Your task to perform on an android device: open app "Adobe Acrobat Reader" (install if not already installed) and go to login screen Image 0: 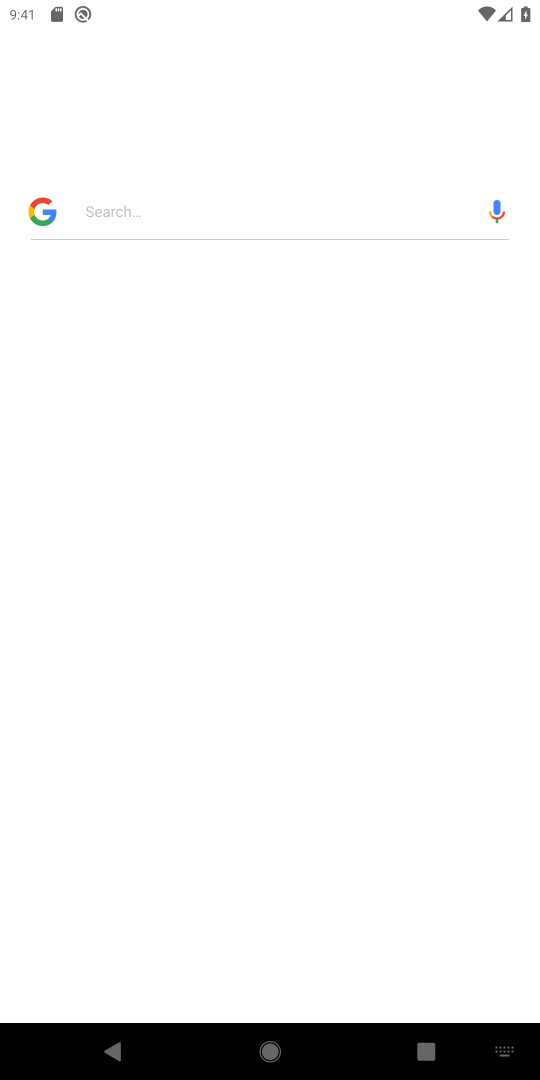
Step 0: press home button
Your task to perform on an android device: open app "Adobe Acrobat Reader" (install if not already installed) and go to login screen Image 1: 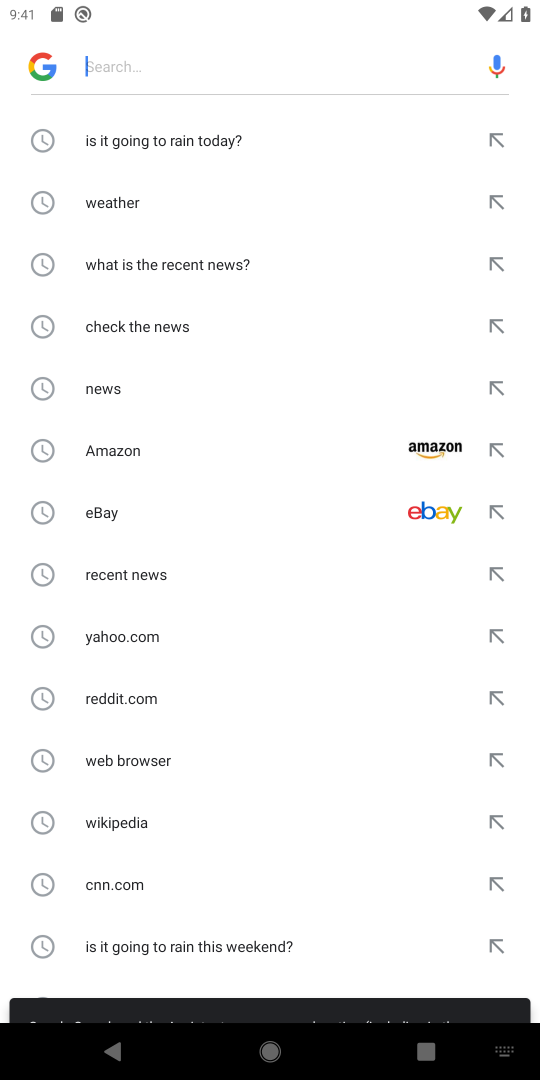
Step 1: press home button
Your task to perform on an android device: open app "Adobe Acrobat Reader" (install if not already installed) and go to login screen Image 2: 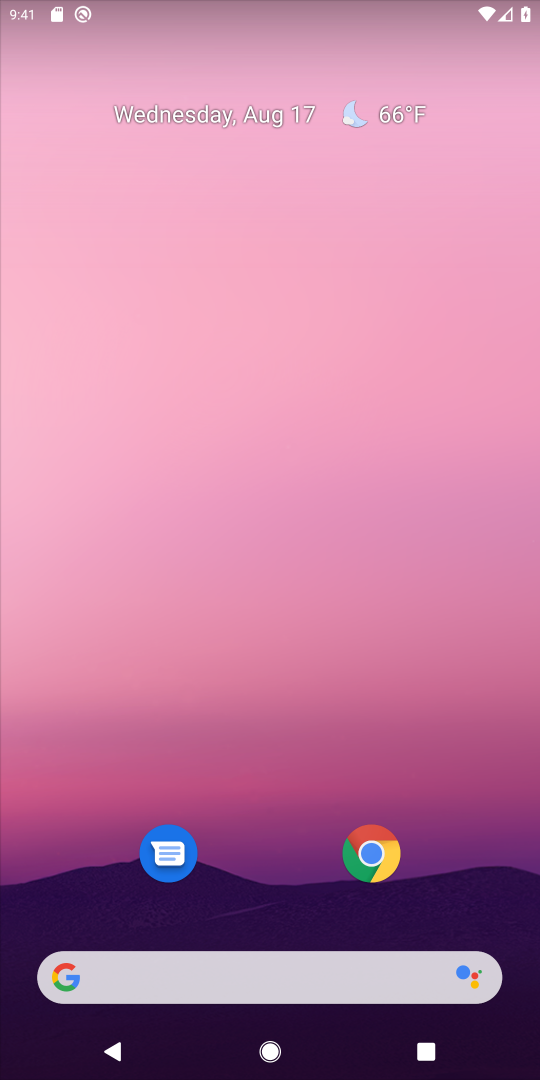
Step 2: press home button
Your task to perform on an android device: open app "Adobe Acrobat Reader" (install if not already installed) and go to login screen Image 3: 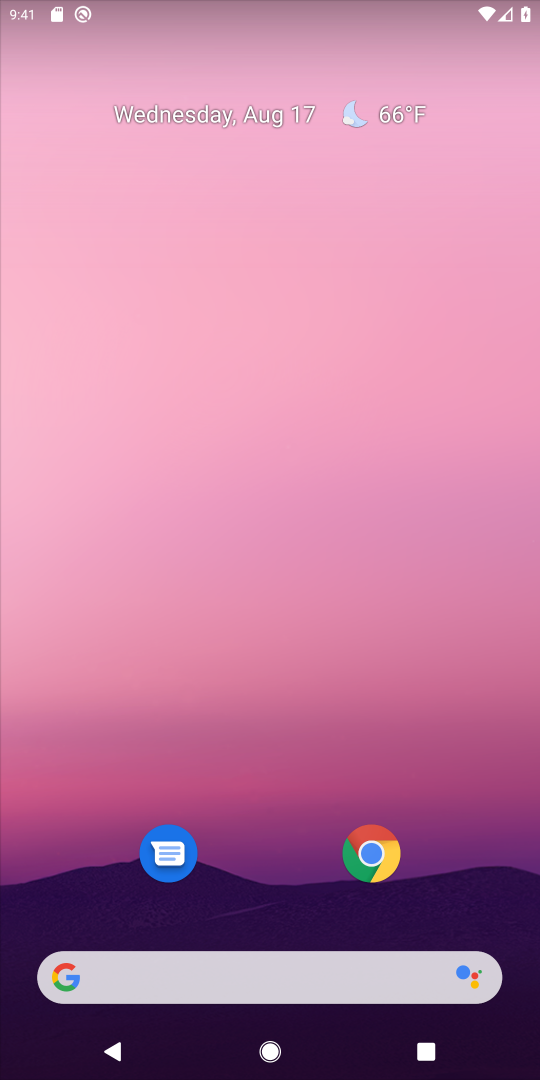
Step 3: drag from (287, 909) to (376, 4)
Your task to perform on an android device: open app "Adobe Acrobat Reader" (install if not already installed) and go to login screen Image 4: 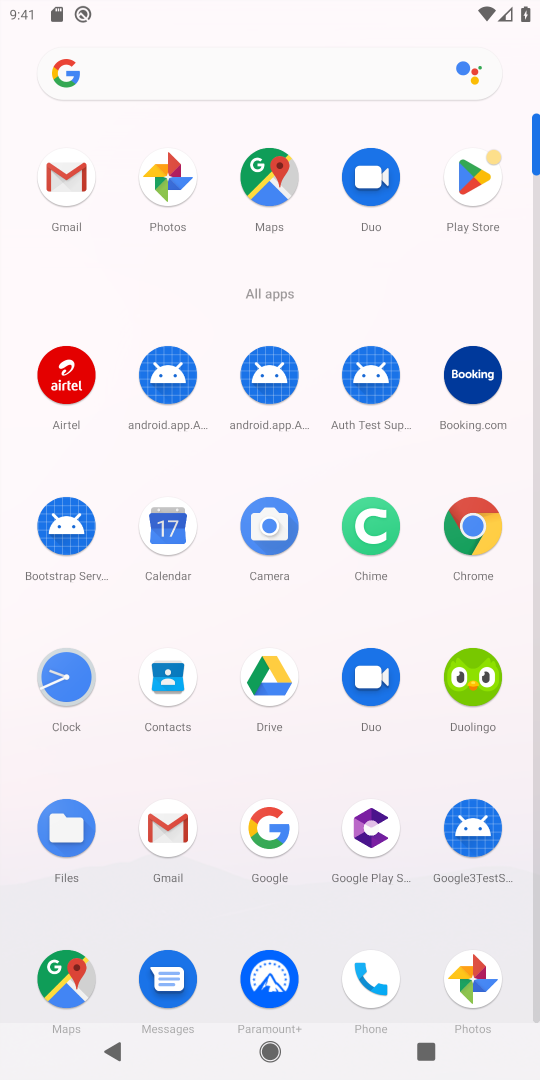
Step 4: click (472, 173)
Your task to perform on an android device: open app "Adobe Acrobat Reader" (install if not already installed) and go to login screen Image 5: 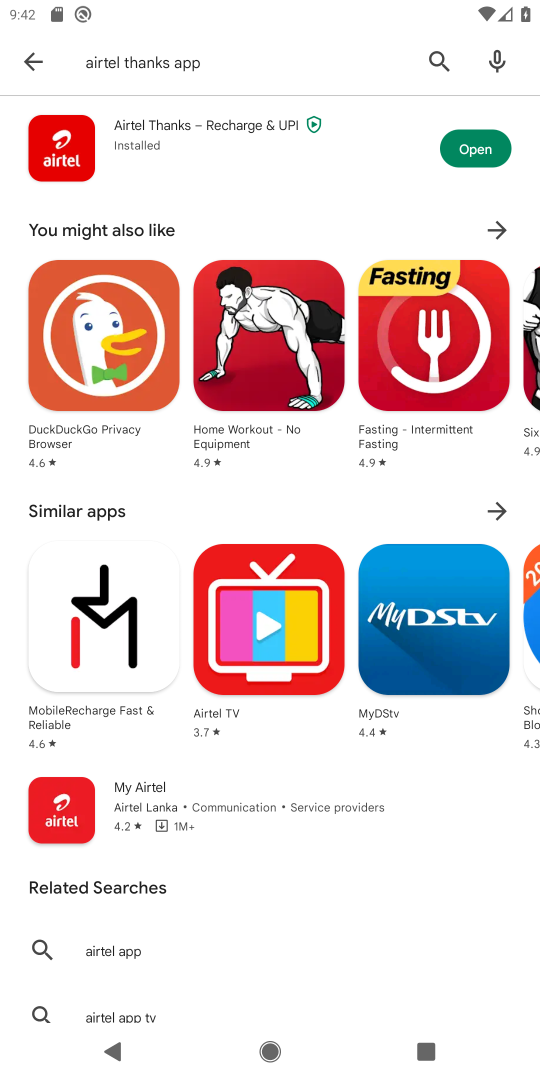
Step 5: click (438, 56)
Your task to perform on an android device: open app "Adobe Acrobat Reader" (install if not already installed) and go to login screen Image 6: 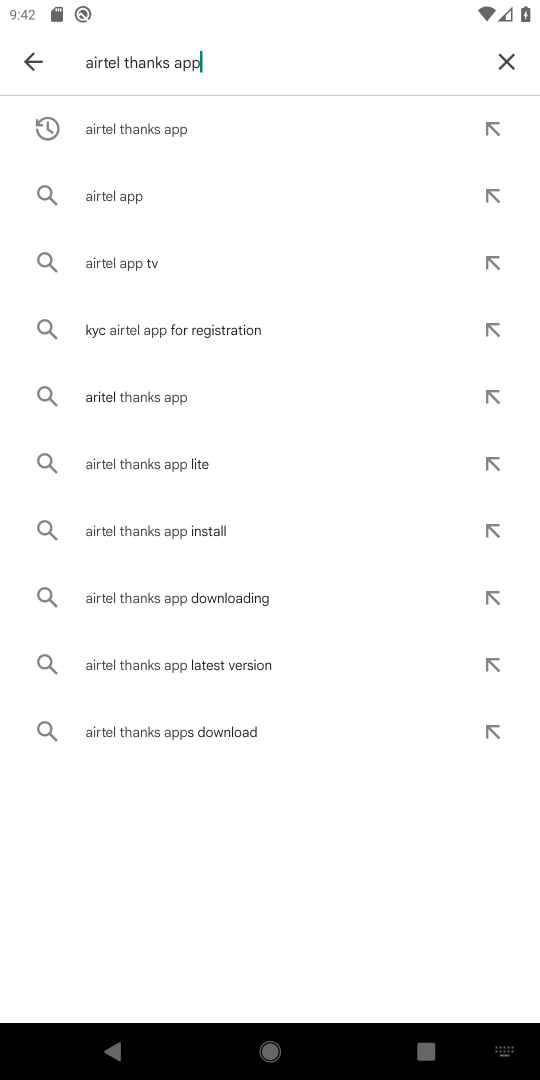
Step 6: click (498, 56)
Your task to perform on an android device: open app "Adobe Acrobat Reader" (install if not already installed) and go to login screen Image 7: 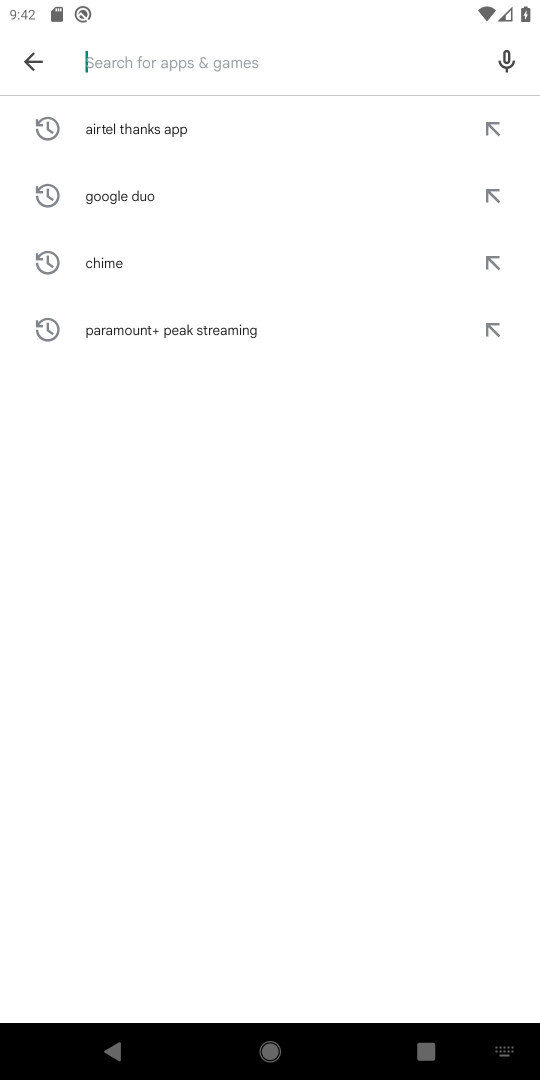
Step 7: type "dobe Acrobat Reader"
Your task to perform on an android device: open app "Adobe Acrobat Reader" (install if not already installed) and go to login screen Image 8: 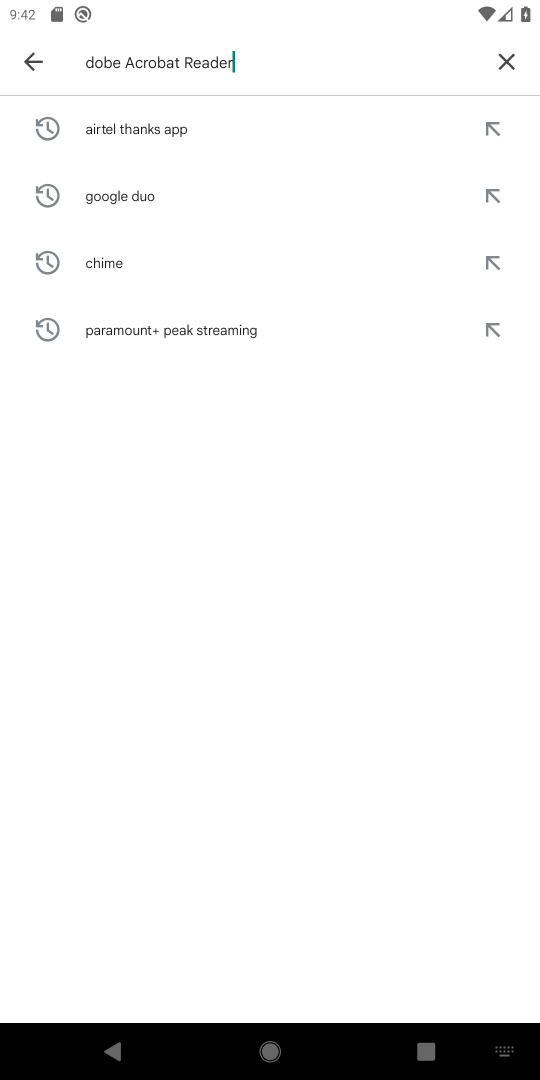
Step 8: type ""
Your task to perform on an android device: open app "Adobe Acrobat Reader" (install if not already installed) and go to login screen Image 9: 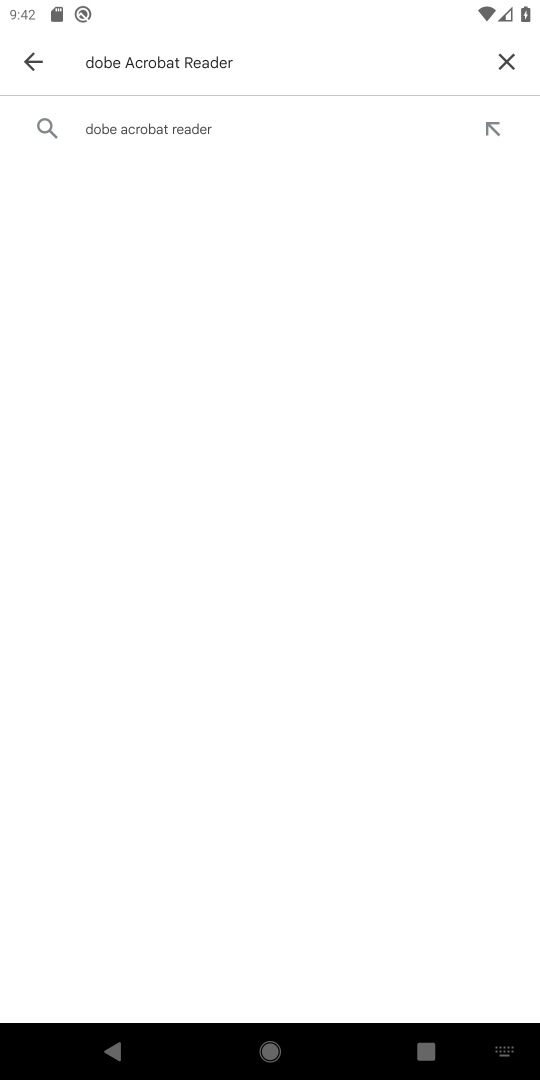
Step 9: click (164, 135)
Your task to perform on an android device: open app "Adobe Acrobat Reader" (install if not already installed) and go to login screen Image 10: 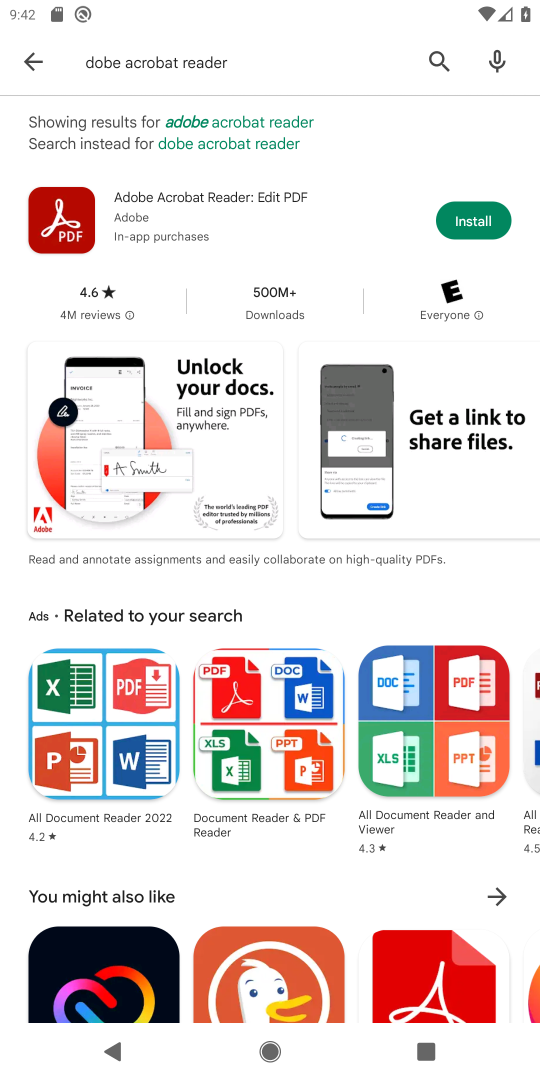
Step 10: click (485, 220)
Your task to perform on an android device: open app "Adobe Acrobat Reader" (install if not already installed) and go to login screen Image 11: 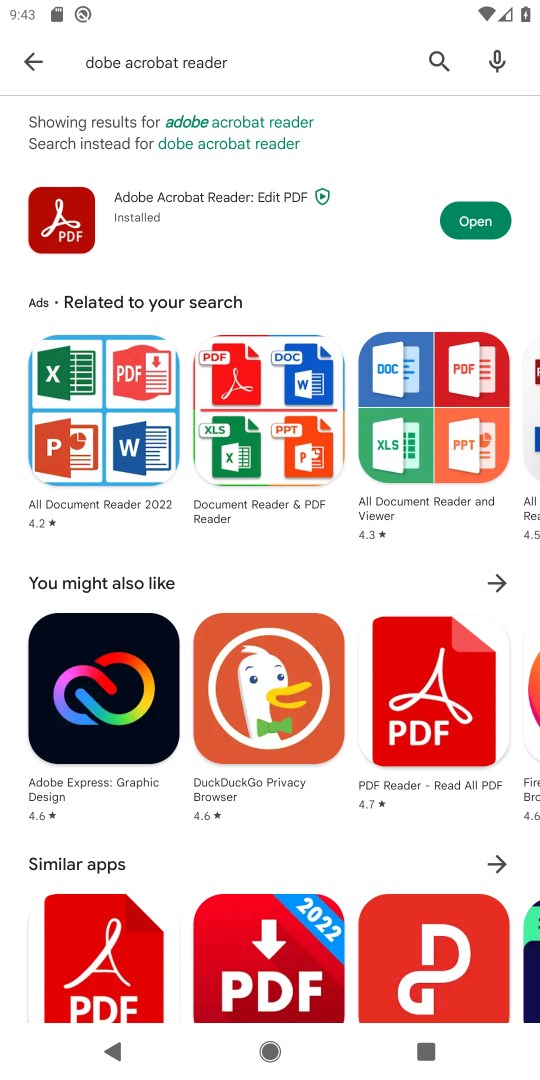
Step 11: click (488, 221)
Your task to perform on an android device: open app "Adobe Acrobat Reader" (install if not already installed) and go to login screen Image 12: 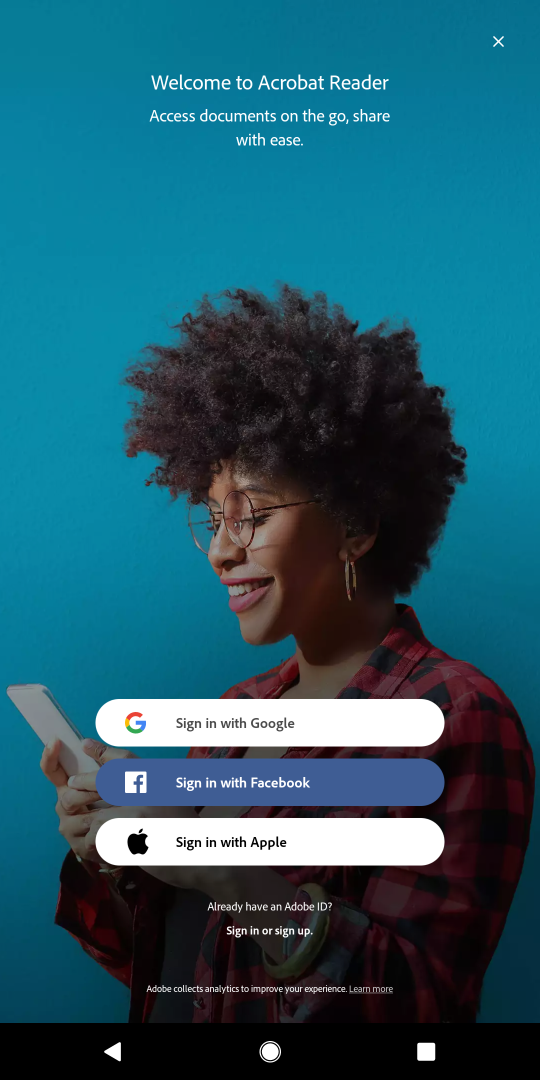
Step 12: task complete